Your task to perform on an android device: Check the news Image 0: 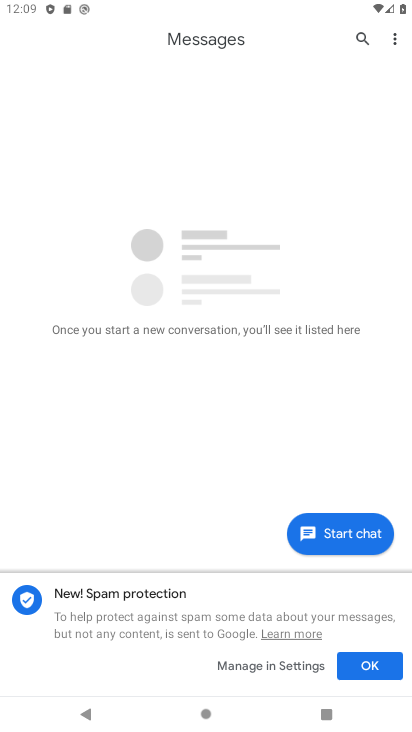
Step 0: press home button
Your task to perform on an android device: Check the news Image 1: 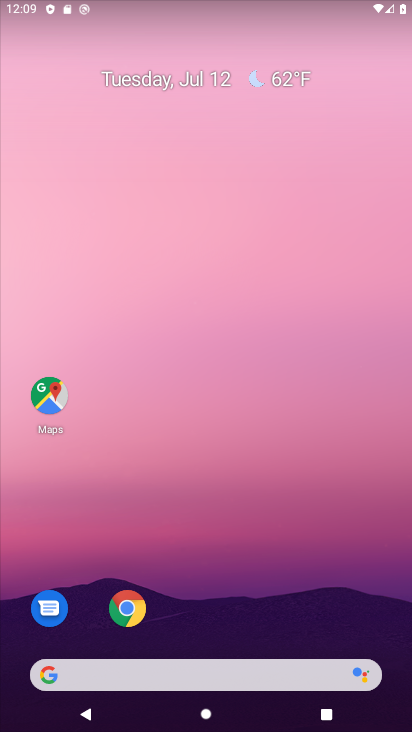
Step 1: drag from (262, 678) to (301, 0)
Your task to perform on an android device: Check the news Image 2: 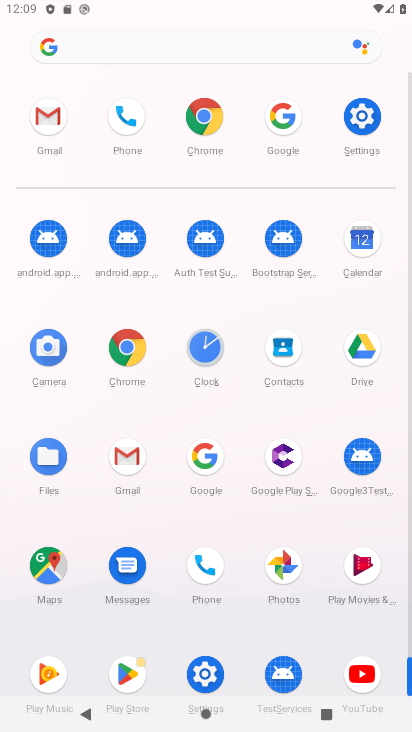
Step 2: click (208, 118)
Your task to perform on an android device: Check the news Image 3: 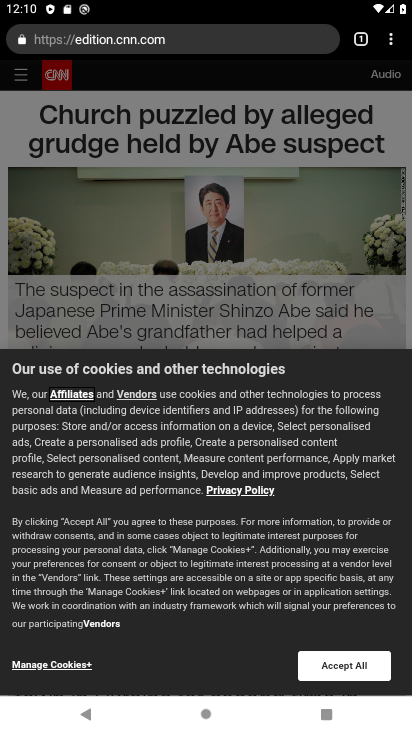
Step 3: task complete